Your task to perform on an android device: delete the emails in spam in the gmail app Image 0: 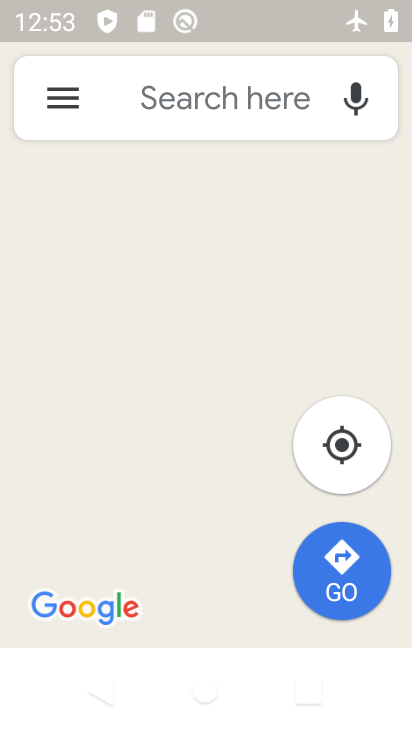
Step 0: press home button
Your task to perform on an android device: delete the emails in spam in the gmail app Image 1: 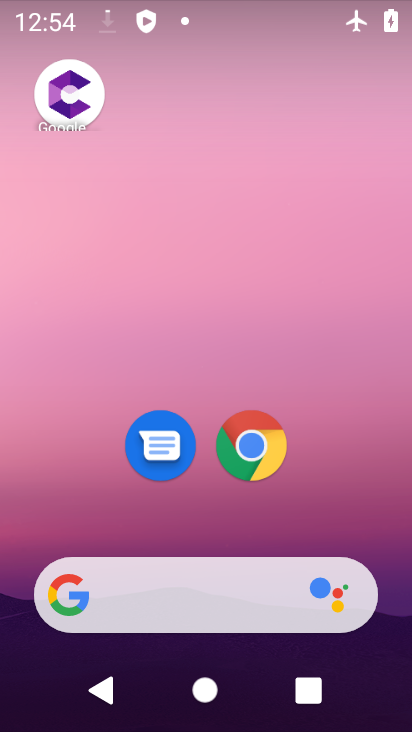
Step 1: drag from (296, 520) to (264, 21)
Your task to perform on an android device: delete the emails in spam in the gmail app Image 2: 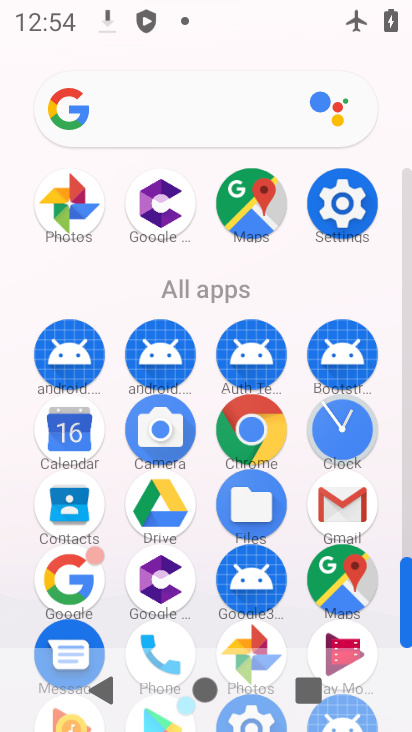
Step 2: click (347, 502)
Your task to perform on an android device: delete the emails in spam in the gmail app Image 3: 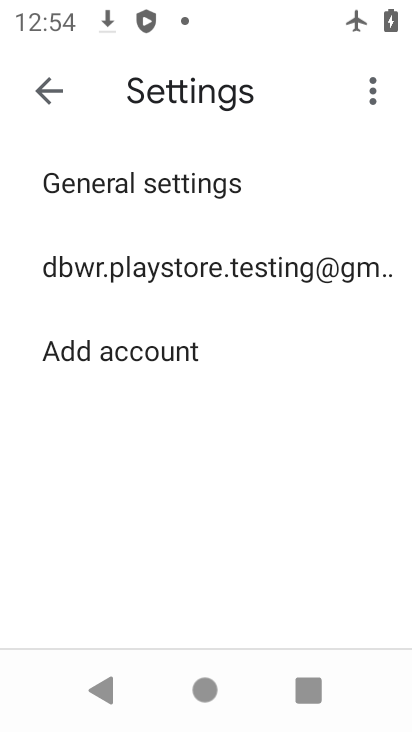
Step 3: click (214, 274)
Your task to perform on an android device: delete the emails in spam in the gmail app Image 4: 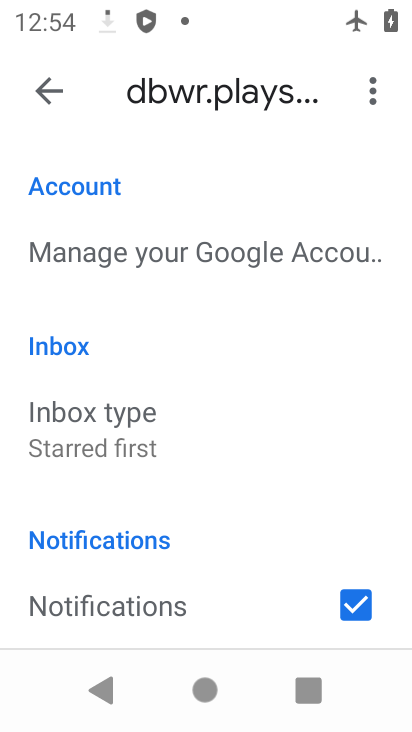
Step 4: drag from (212, 618) to (226, 269)
Your task to perform on an android device: delete the emails in spam in the gmail app Image 5: 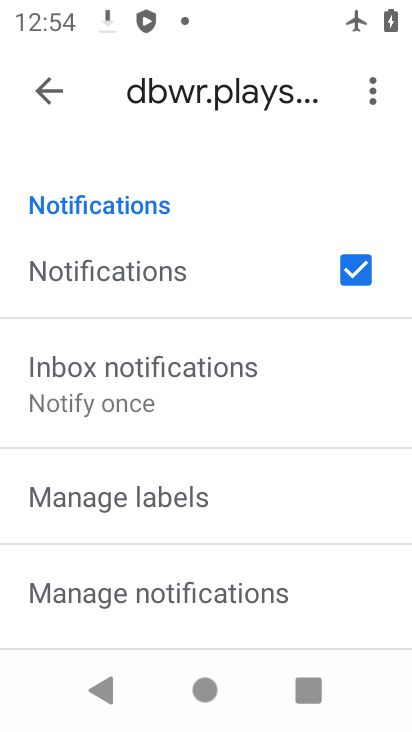
Step 5: drag from (205, 289) to (137, 731)
Your task to perform on an android device: delete the emails in spam in the gmail app Image 6: 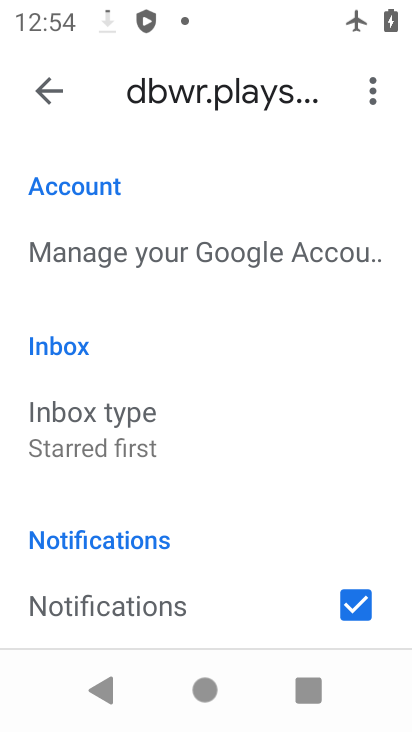
Step 6: click (28, 99)
Your task to perform on an android device: delete the emails in spam in the gmail app Image 7: 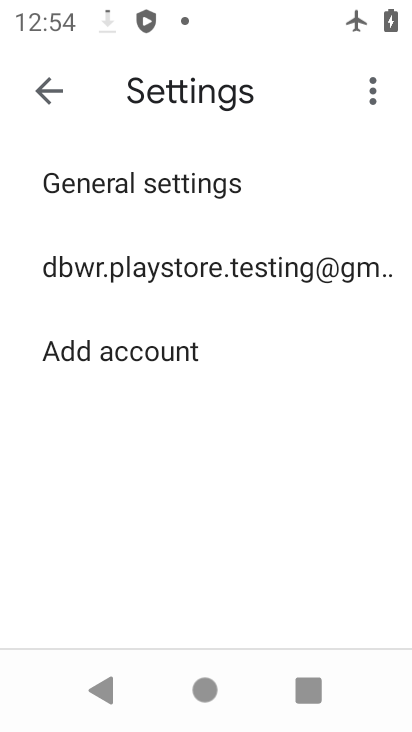
Step 7: click (25, 96)
Your task to perform on an android device: delete the emails in spam in the gmail app Image 8: 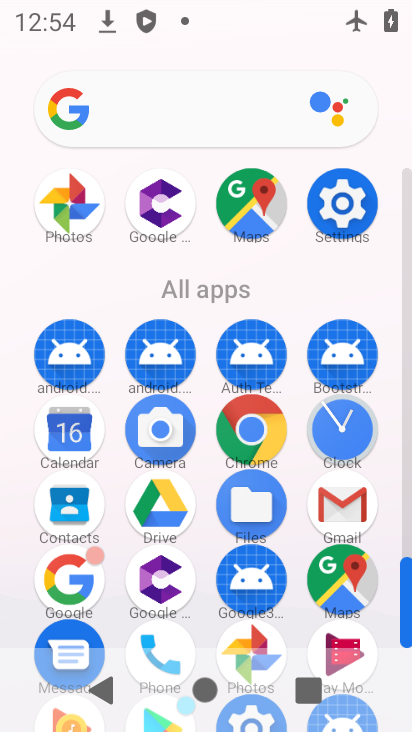
Step 8: click (364, 516)
Your task to perform on an android device: delete the emails in spam in the gmail app Image 9: 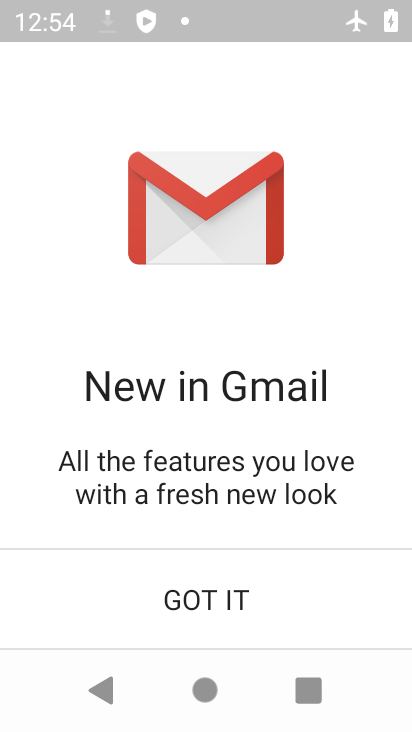
Step 9: click (219, 625)
Your task to perform on an android device: delete the emails in spam in the gmail app Image 10: 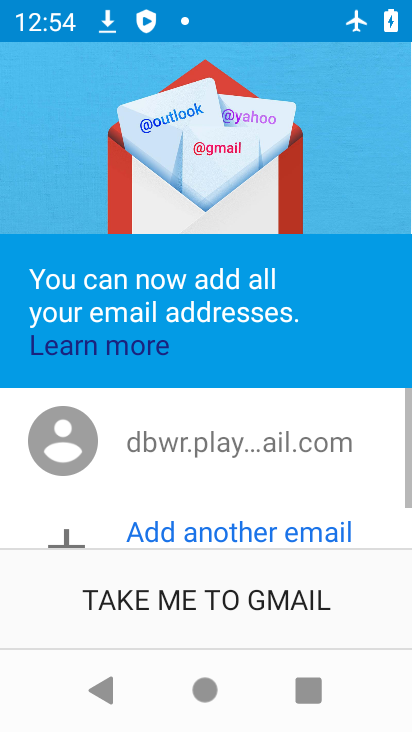
Step 10: click (224, 620)
Your task to perform on an android device: delete the emails in spam in the gmail app Image 11: 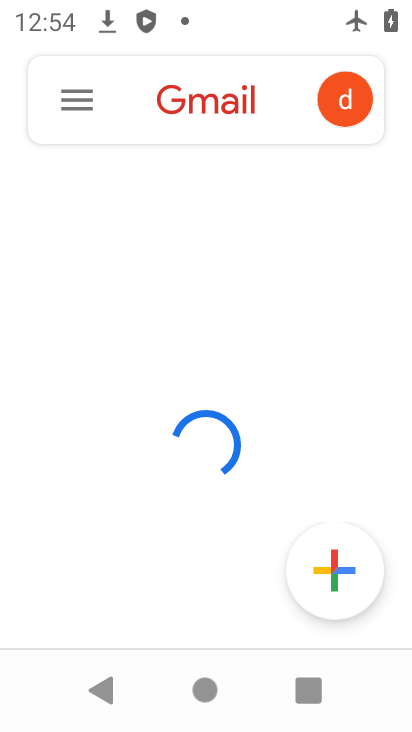
Step 11: click (74, 125)
Your task to perform on an android device: delete the emails in spam in the gmail app Image 12: 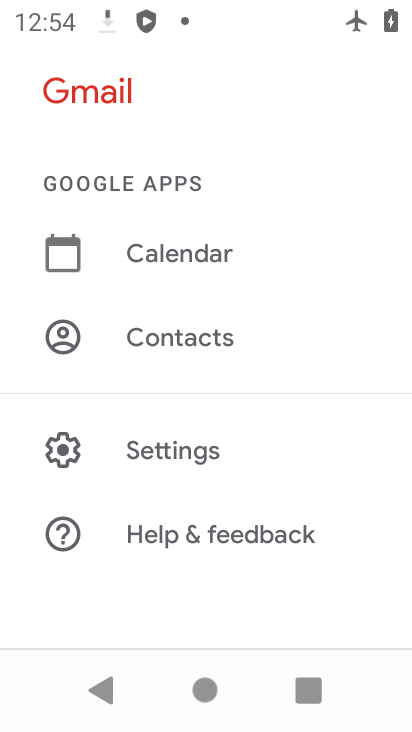
Step 12: drag from (254, 297) to (256, 588)
Your task to perform on an android device: delete the emails in spam in the gmail app Image 13: 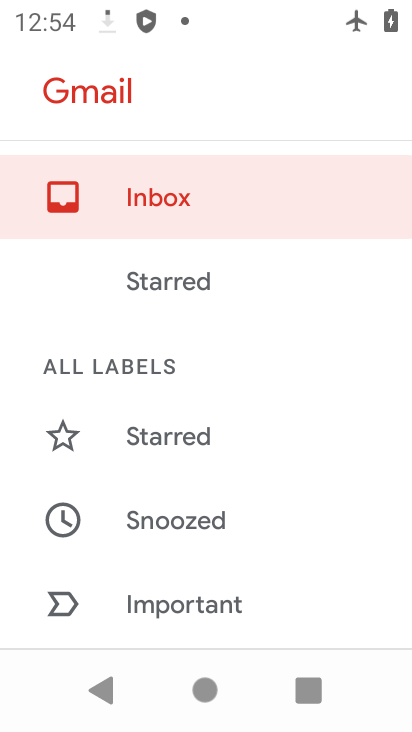
Step 13: drag from (253, 332) to (224, 634)
Your task to perform on an android device: delete the emails in spam in the gmail app Image 14: 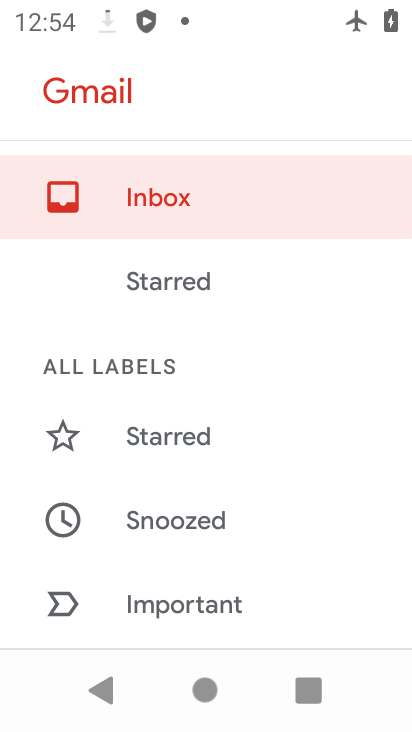
Step 14: drag from (298, 356) to (288, 653)
Your task to perform on an android device: delete the emails in spam in the gmail app Image 15: 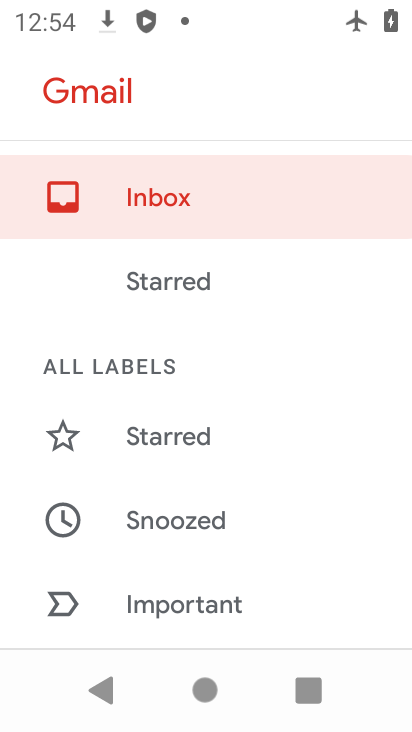
Step 15: drag from (273, 599) to (257, 331)
Your task to perform on an android device: delete the emails in spam in the gmail app Image 16: 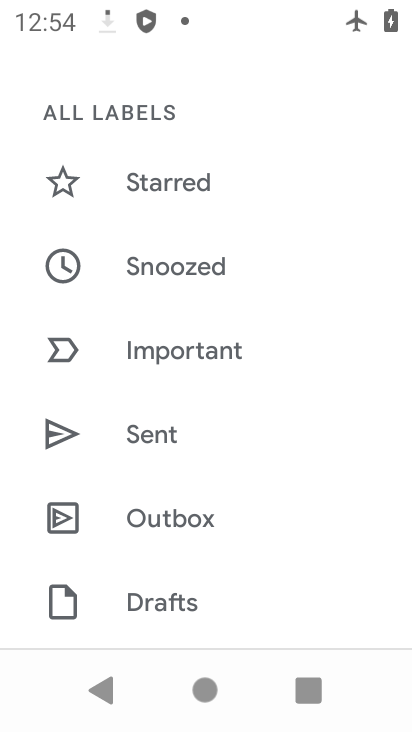
Step 16: drag from (199, 593) to (215, 171)
Your task to perform on an android device: delete the emails in spam in the gmail app Image 17: 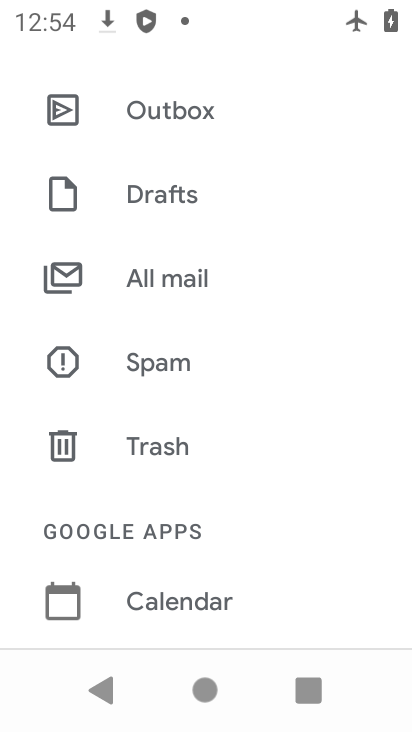
Step 17: click (134, 290)
Your task to perform on an android device: delete the emails in spam in the gmail app Image 18: 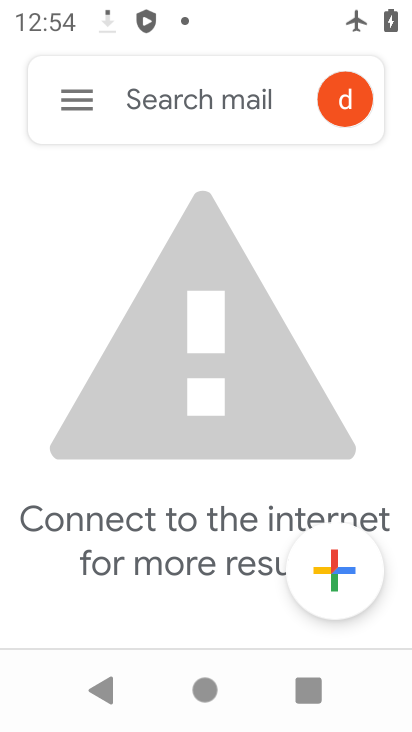
Step 18: click (74, 97)
Your task to perform on an android device: delete the emails in spam in the gmail app Image 19: 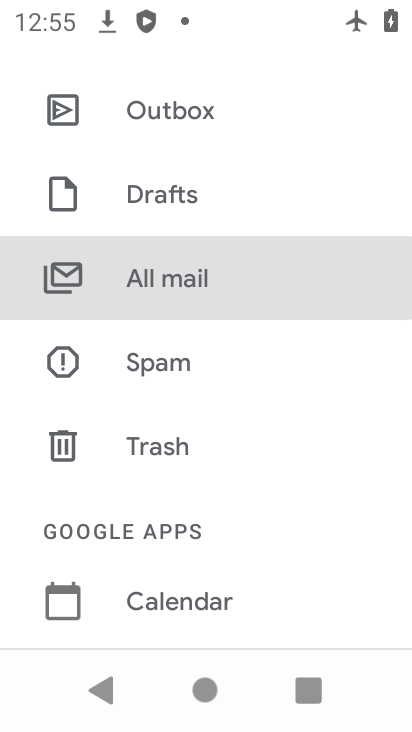
Step 19: drag from (245, 591) to (230, 200)
Your task to perform on an android device: delete the emails in spam in the gmail app Image 20: 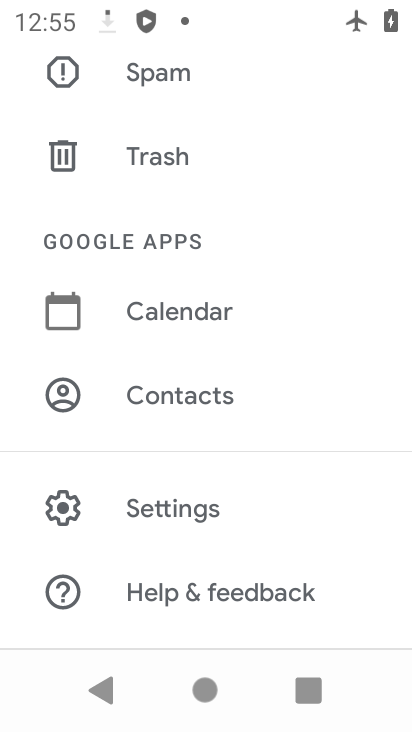
Step 20: click (171, 72)
Your task to perform on an android device: delete the emails in spam in the gmail app Image 21: 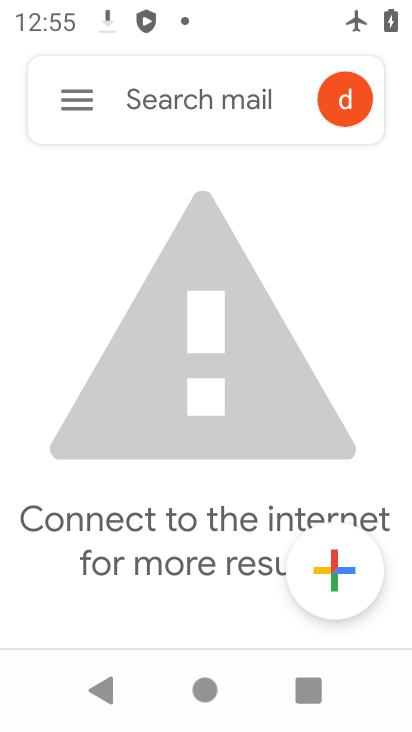
Step 21: task complete